Your task to perform on an android device: Search for pizza restaurants on Maps Image 0: 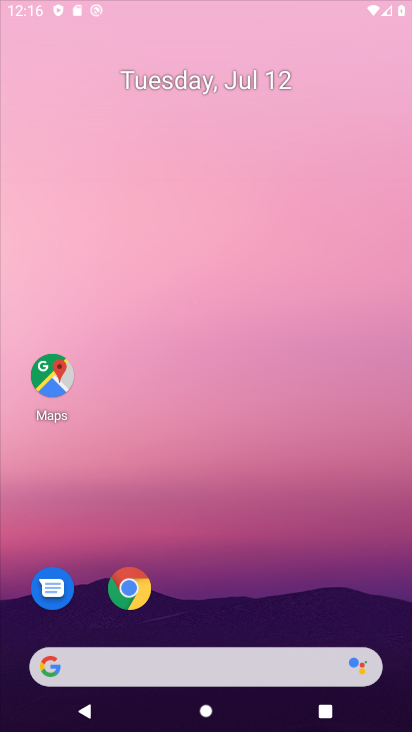
Step 0: click (262, 7)
Your task to perform on an android device: Search for pizza restaurants on Maps Image 1: 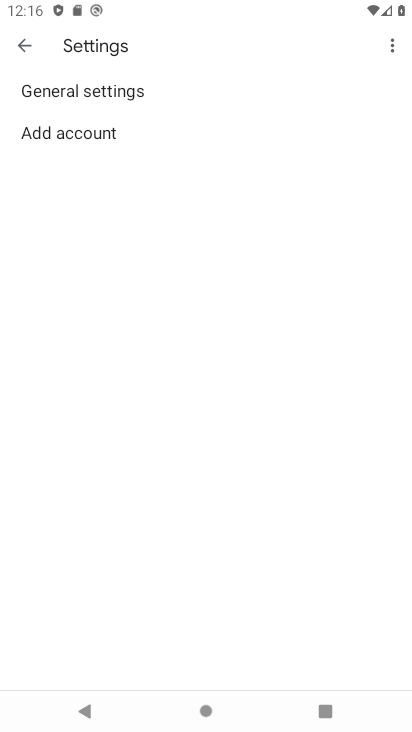
Step 1: press home button
Your task to perform on an android device: Search for pizza restaurants on Maps Image 2: 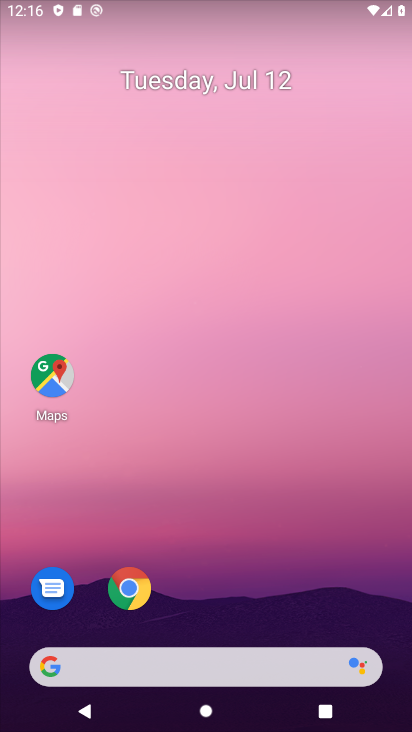
Step 2: drag from (250, 724) to (219, 112)
Your task to perform on an android device: Search for pizza restaurants on Maps Image 3: 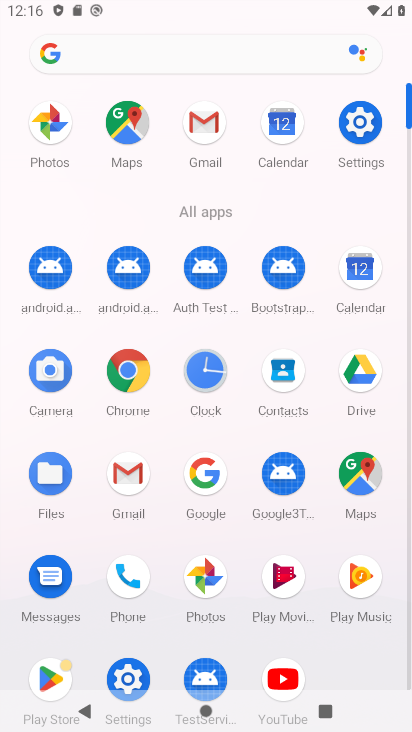
Step 3: click (353, 479)
Your task to perform on an android device: Search for pizza restaurants on Maps Image 4: 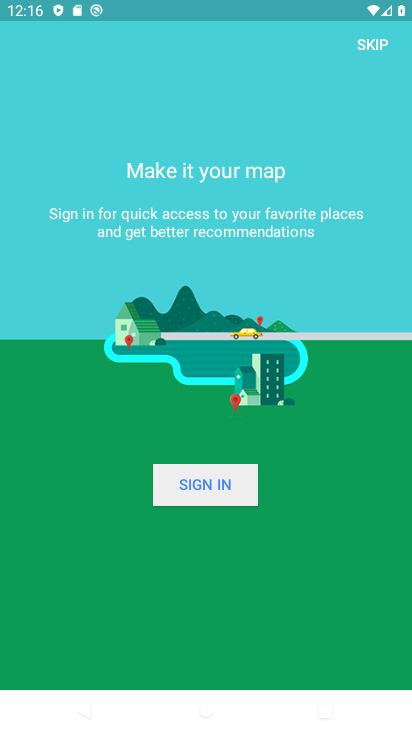
Step 4: click (370, 43)
Your task to perform on an android device: Search for pizza restaurants on Maps Image 5: 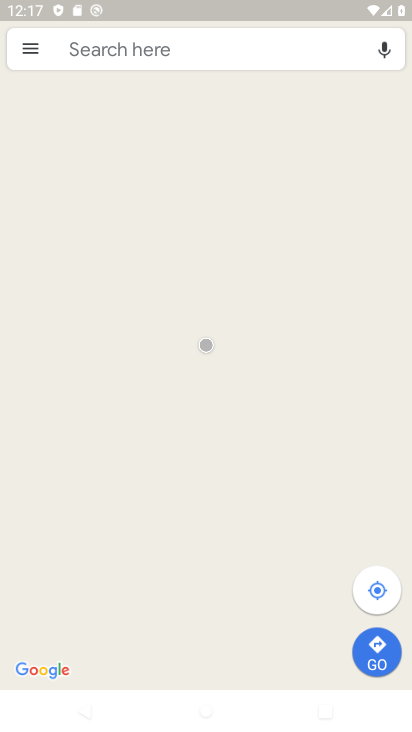
Step 5: click (276, 47)
Your task to perform on an android device: Search for pizza restaurants on Maps Image 6: 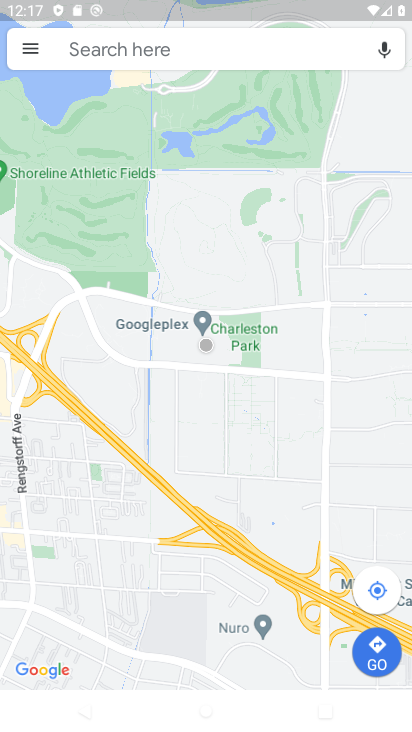
Step 6: click (276, 47)
Your task to perform on an android device: Search for pizza restaurants on Maps Image 7: 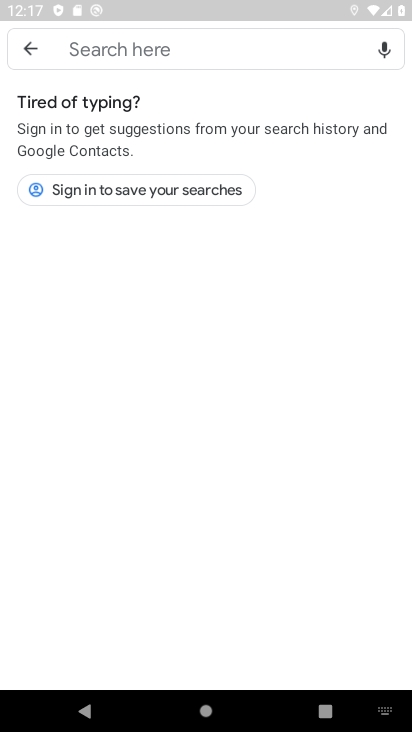
Step 7: type "pizza restaurants"
Your task to perform on an android device: Search for pizza restaurants on Maps Image 8: 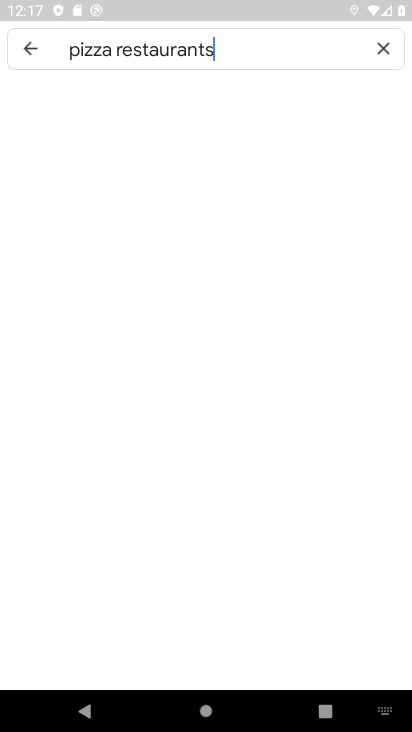
Step 8: type ""
Your task to perform on an android device: Search for pizza restaurants on Maps Image 9: 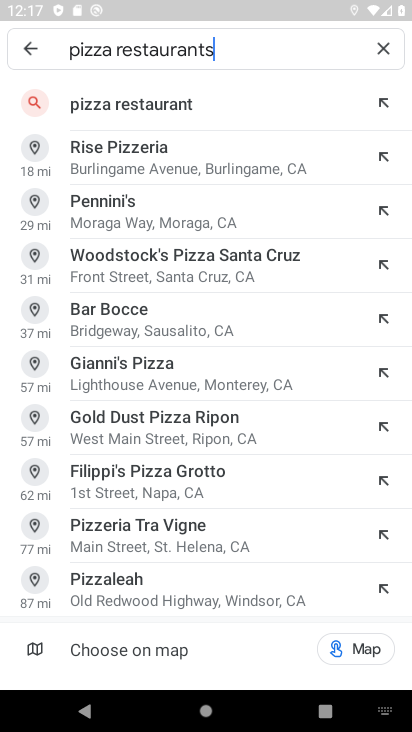
Step 9: click (175, 105)
Your task to perform on an android device: Search for pizza restaurants on Maps Image 10: 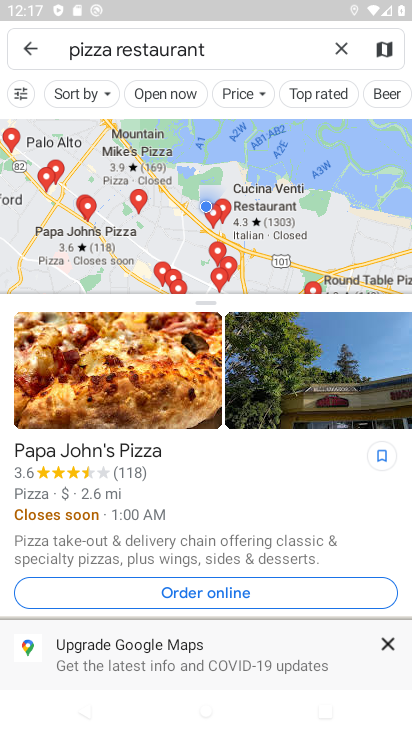
Step 10: task complete